Your task to perform on an android device: Go to network settings Image 0: 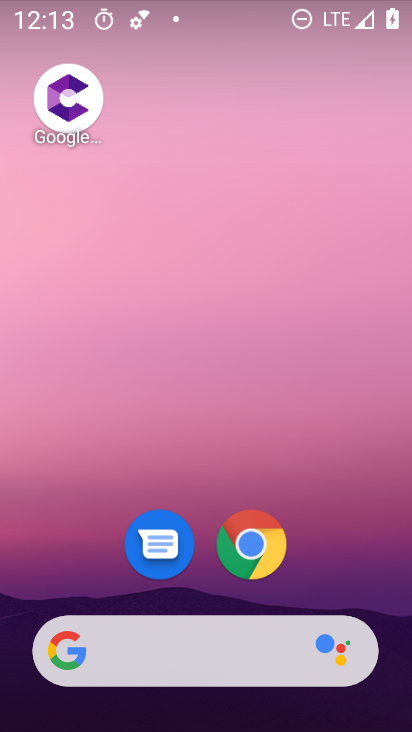
Step 0: drag from (350, 557) to (317, 115)
Your task to perform on an android device: Go to network settings Image 1: 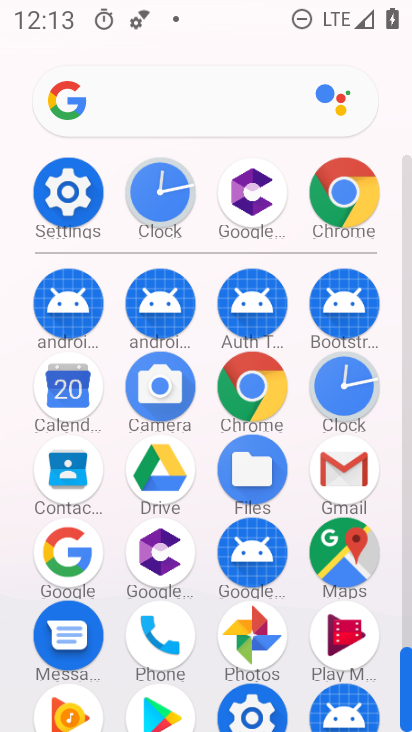
Step 1: click (74, 203)
Your task to perform on an android device: Go to network settings Image 2: 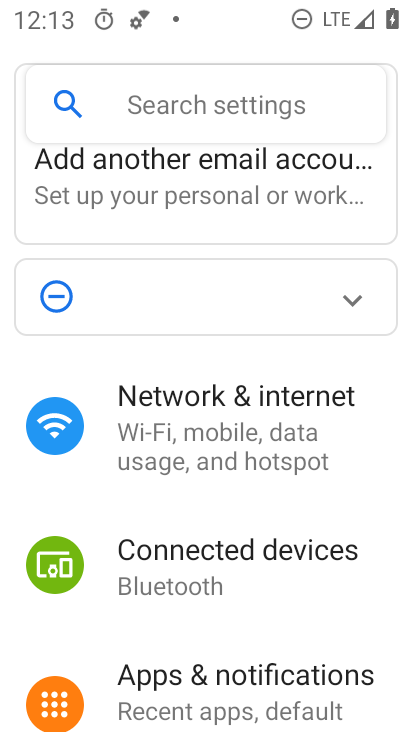
Step 2: drag from (365, 609) to (378, 369)
Your task to perform on an android device: Go to network settings Image 3: 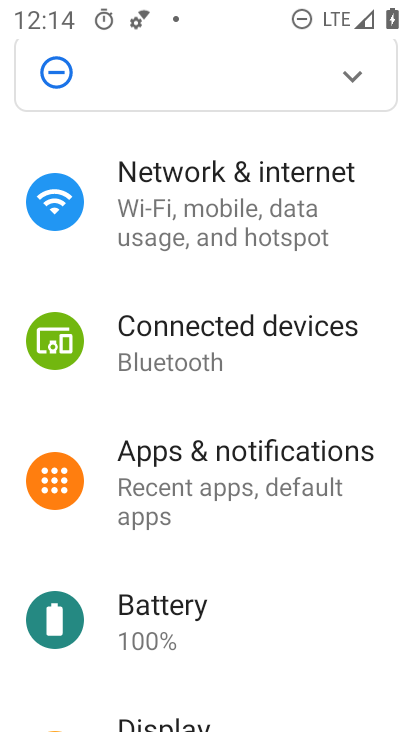
Step 3: drag from (351, 616) to (366, 369)
Your task to perform on an android device: Go to network settings Image 4: 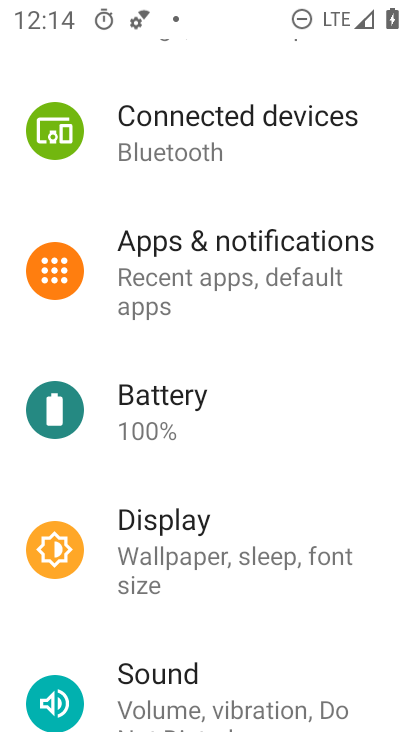
Step 4: drag from (329, 612) to (340, 406)
Your task to perform on an android device: Go to network settings Image 5: 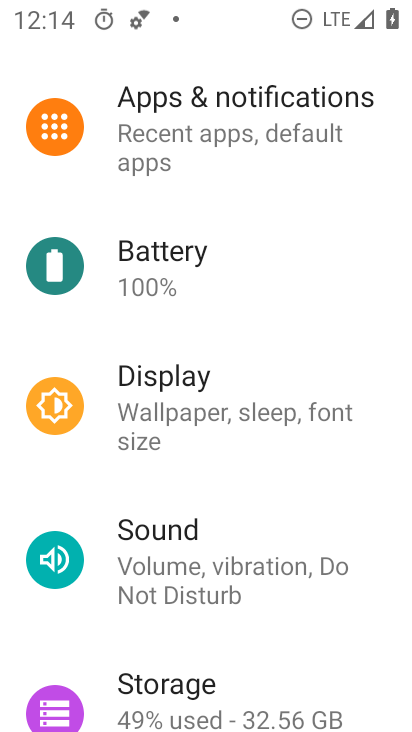
Step 5: drag from (342, 612) to (336, 292)
Your task to perform on an android device: Go to network settings Image 6: 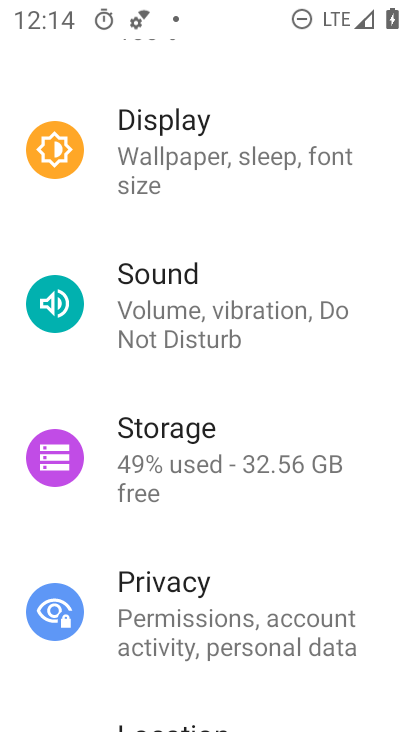
Step 6: drag from (352, 550) to (339, 310)
Your task to perform on an android device: Go to network settings Image 7: 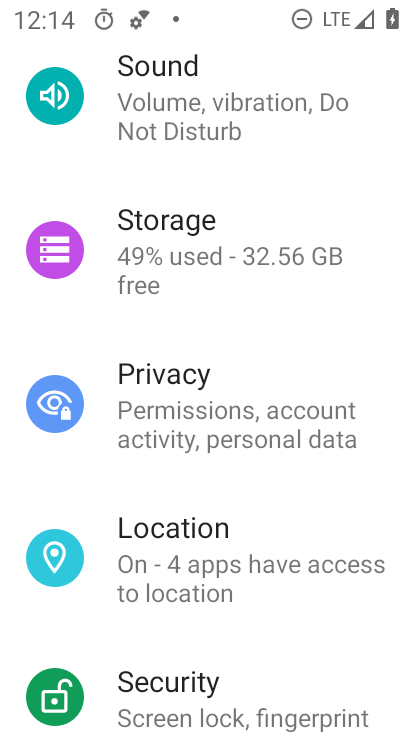
Step 7: drag from (338, 634) to (281, 289)
Your task to perform on an android device: Go to network settings Image 8: 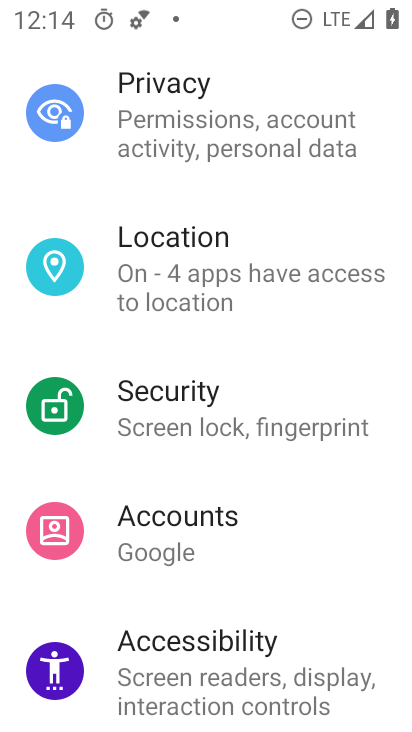
Step 8: drag from (315, 564) to (324, 304)
Your task to perform on an android device: Go to network settings Image 9: 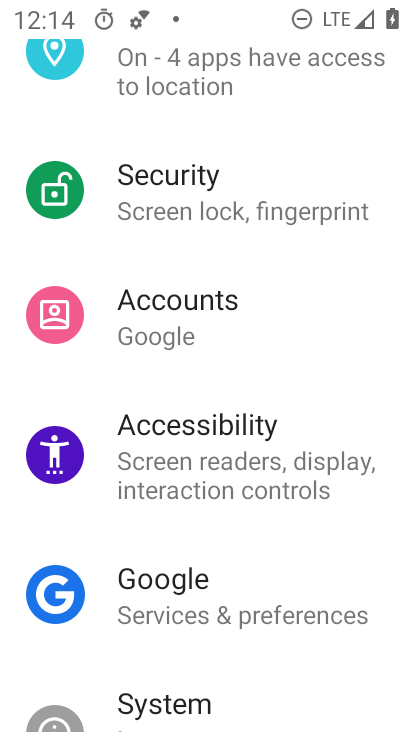
Step 9: drag from (389, 253) to (358, 560)
Your task to perform on an android device: Go to network settings Image 10: 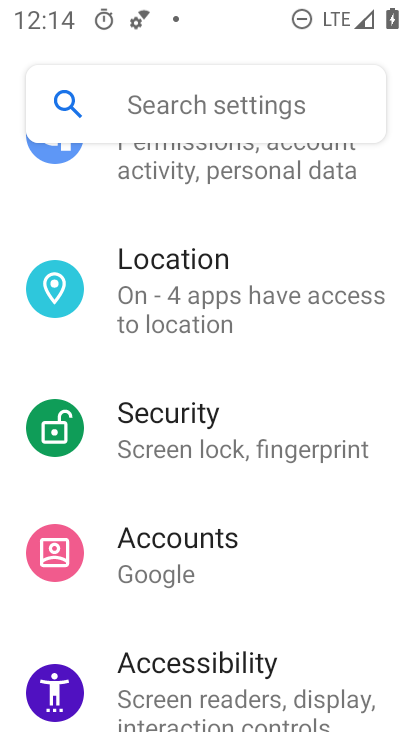
Step 10: drag from (387, 208) to (323, 542)
Your task to perform on an android device: Go to network settings Image 11: 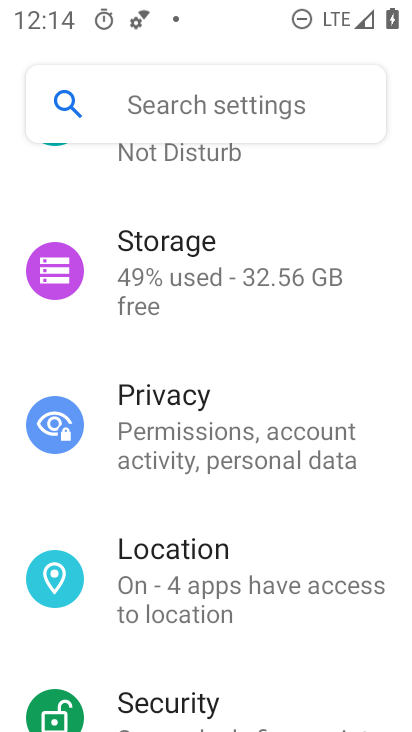
Step 11: drag from (357, 198) to (336, 487)
Your task to perform on an android device: Go to network settings Image 12: 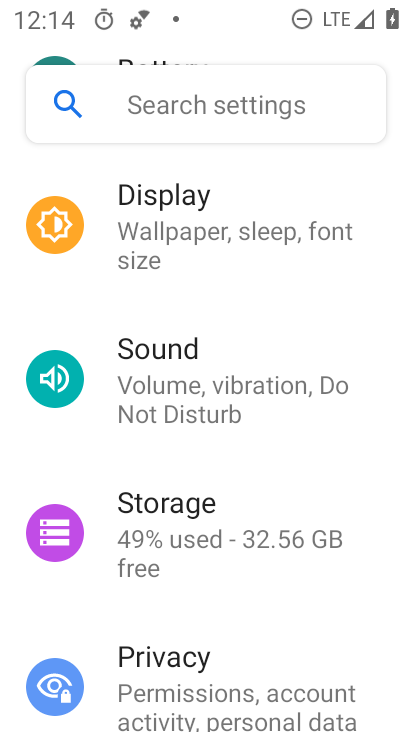
Step 12: drag from (379, 203) to (350, 491)
Your task to perform on an android device: Go to network settings Image 13: 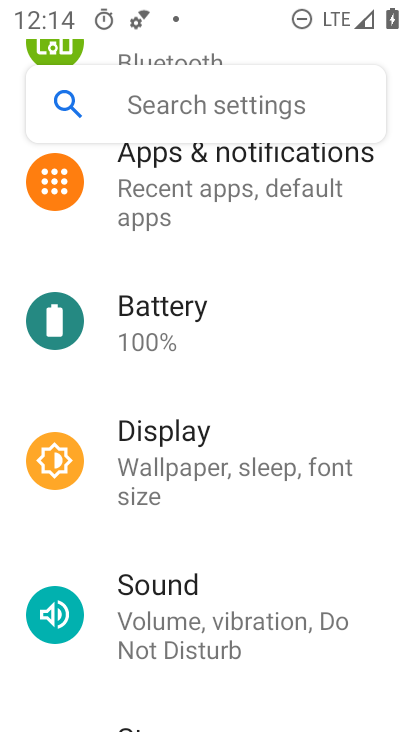
Step 13: drag from (373, 225) to (368, 427)
Your task to perform on an android device: Go to network settings Image 14: 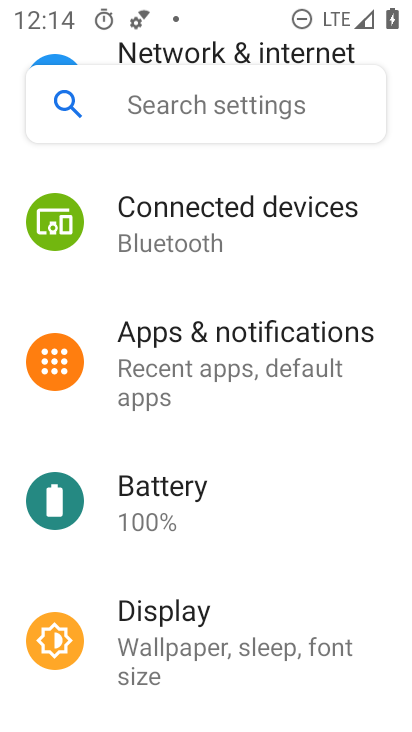
Step 14: drag from (344, 233) to (341, 504)
Your task to perform on an android device: Go to network settings Image 15: 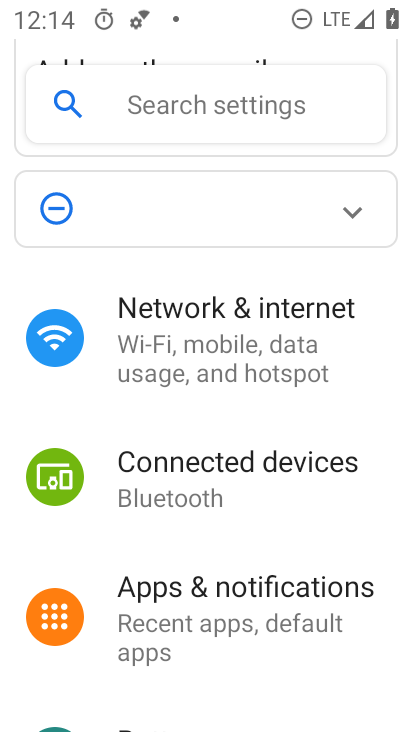
Step 15: click (209, 333)
Your task to perform on an android device: Go to network settings Image 16: 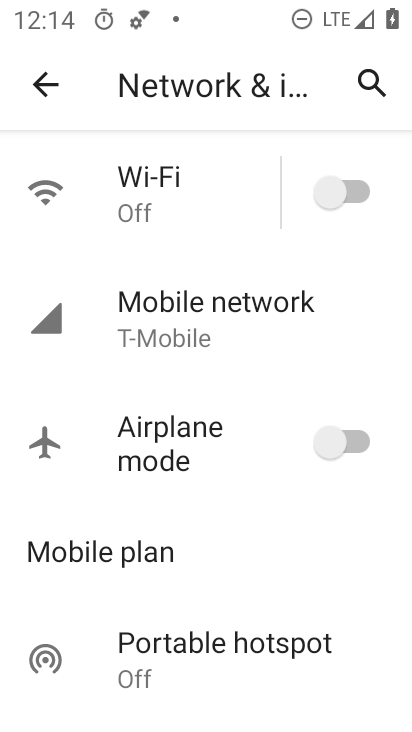
Step 16: click (197, 319)
Your task to perform on an android device: Go to network settings Image 17: 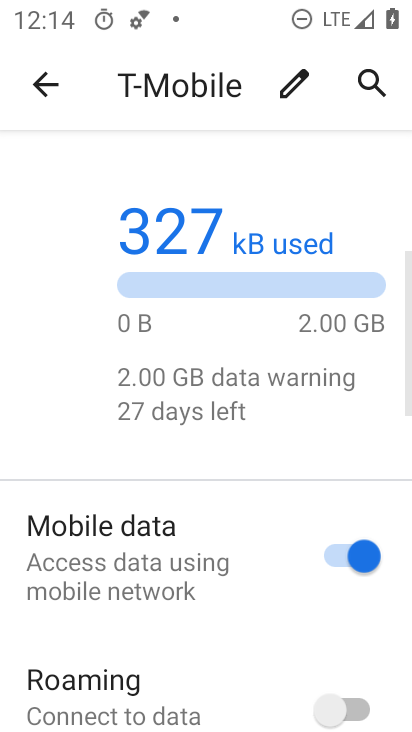
Step 17: drag from (252, 584) to (285, 212)
Your task to perform on an android device: Go to network settings Image 18: 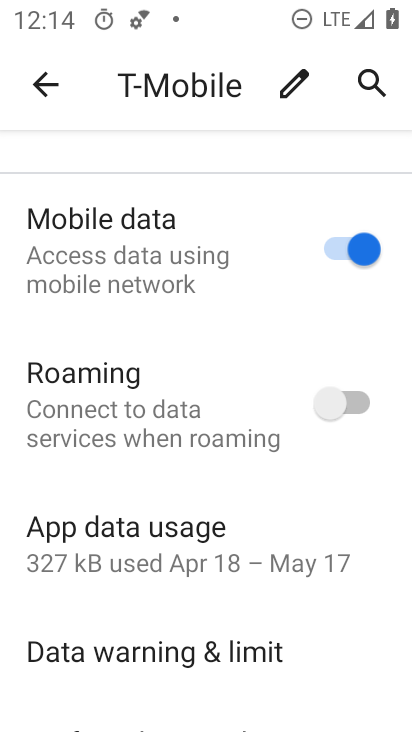
Step 18: drag from (299, 614) to (253, 225)
Your task to perform on an android device: Go to network settings Image 19: 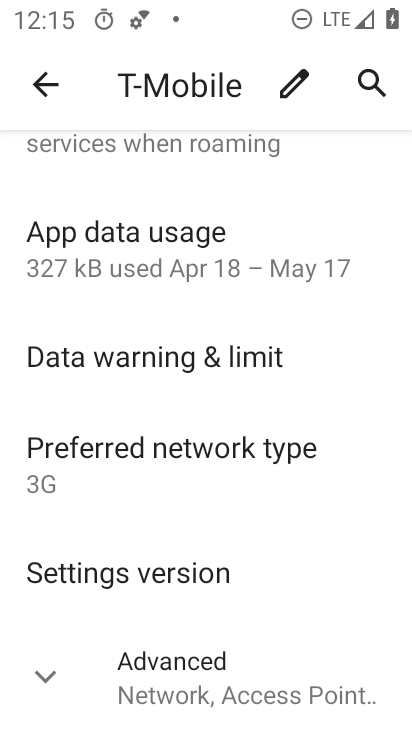
Step 19: click (235, 706)
Your task to perform on an android device: Go to network settings Image 20: 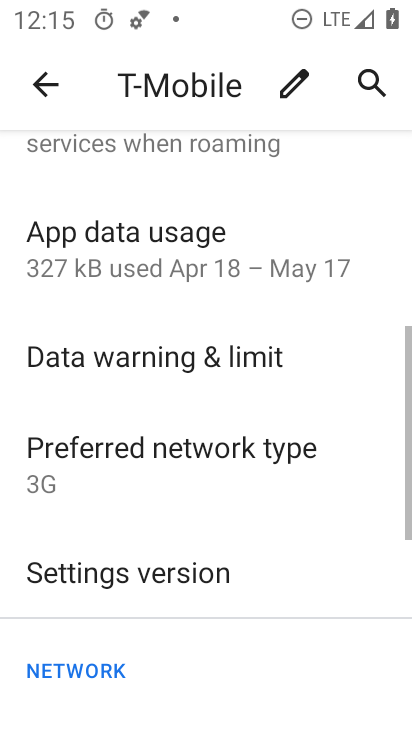
Step 20: task complete